Your task to perform on an android device: Go to Google Image 0: 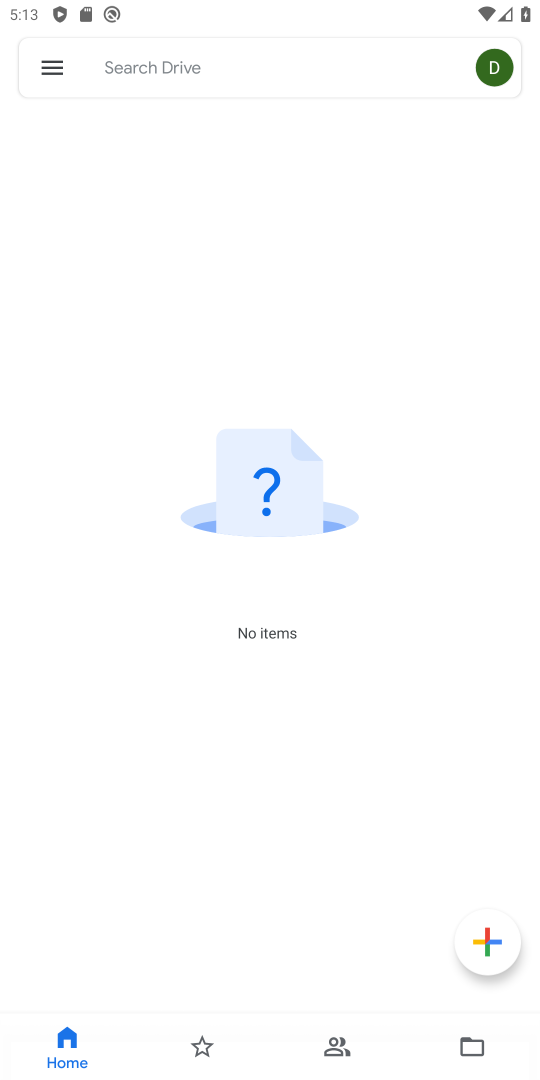
Step 0: press home button
Your task to perform on an android device: Go to Google Image 1: 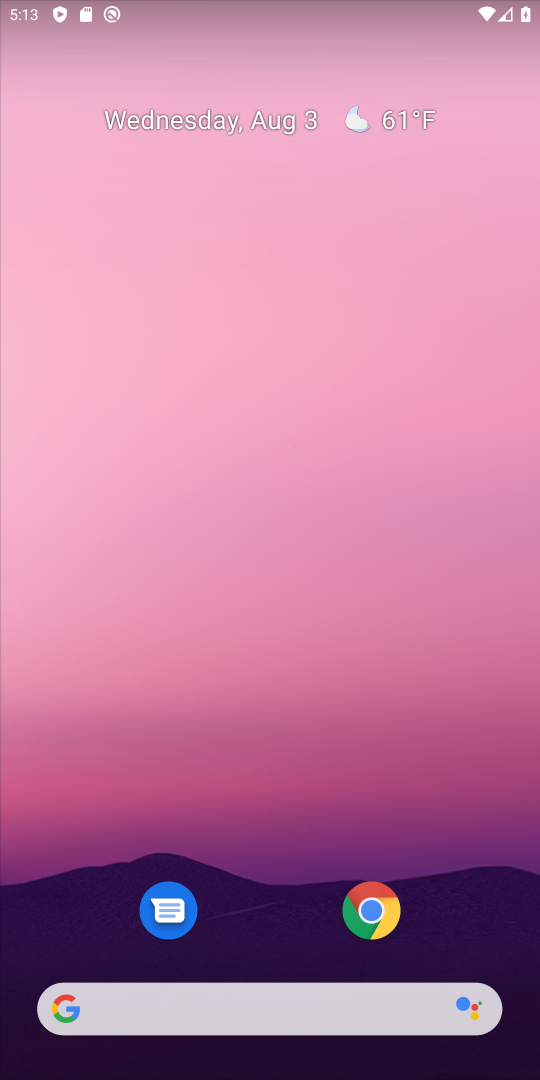
Step 1: drag from (252, 944) to (460, 38)
Your task to perform on an android device: Go to Google Image 2: 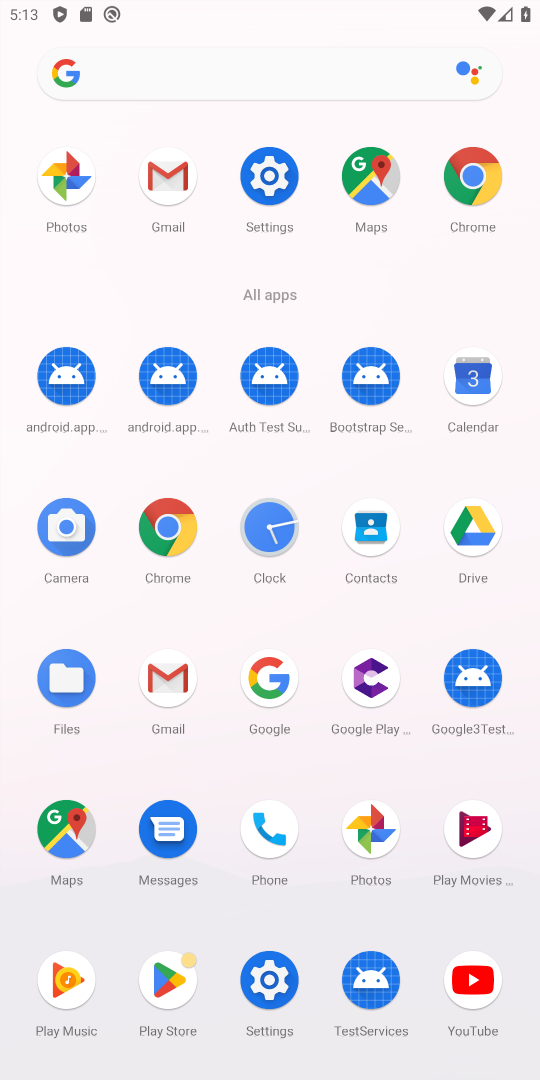
Step 2: click (254, 686)
Your task to perform on an android device: Go to Google Image 3: 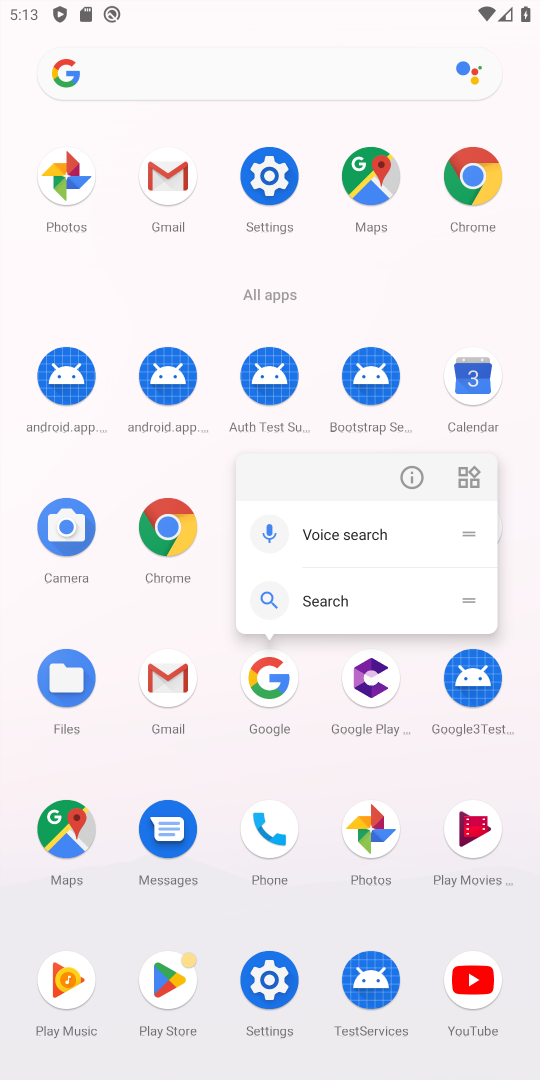
Step 3: click (268, 673)
Your task to perform on an android device: Go to Google Image 4: 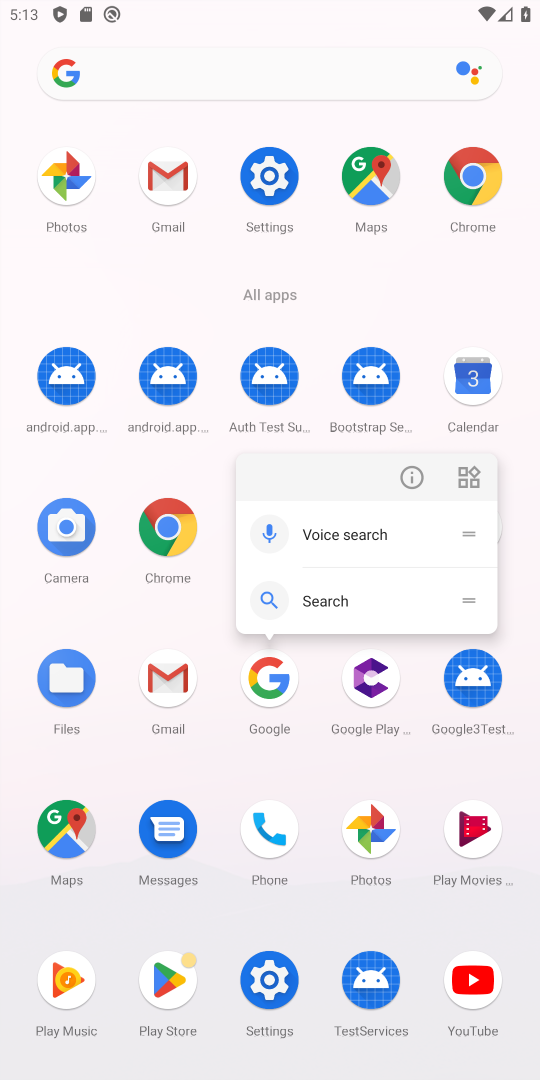
Step 4: click (268, 673)
Your task to perform on an android device: Go to Google Image 5: 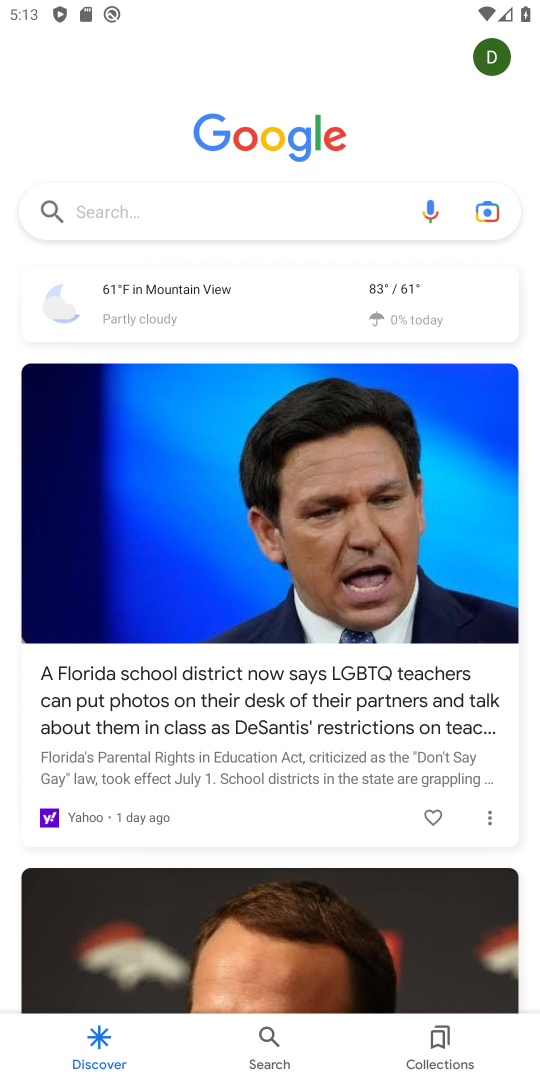
Step 5: task complete